Your task to perform on an android device: Go to network settings Image 0: 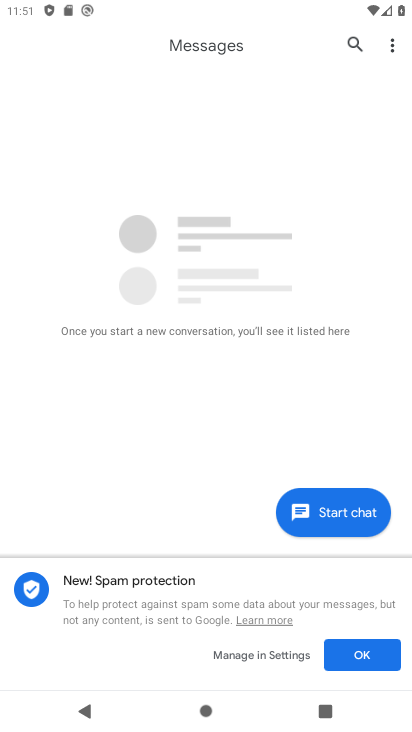
Step 0: press home button
Your task to perform on an android device: Go to network settings Image 1: 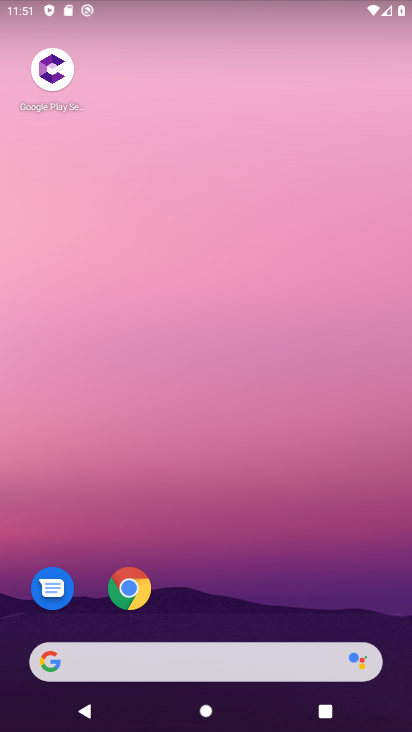
Step 1: drag from (182, 518) to (208, 396)
Your task to perform on an android device: Go to network settings Image 2: 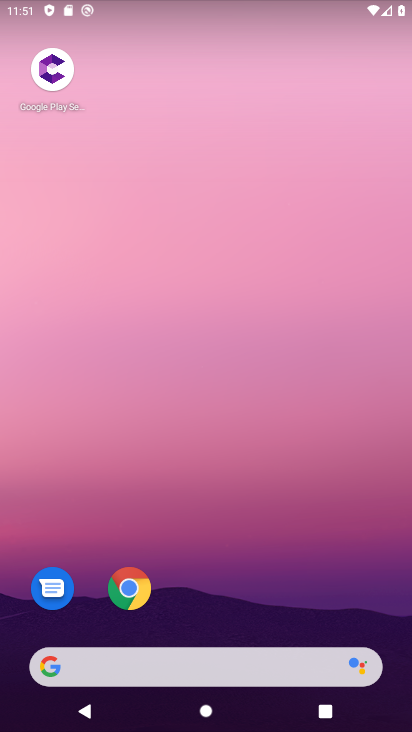
Step 2: drag from (201, 639) to (223, 161)
Your task to perform on an android device: Go to network settings Image 3: 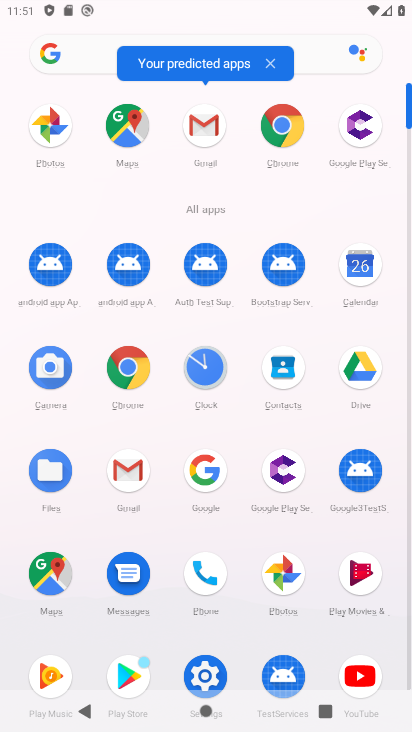
Step 3: click (197, 669)
Your task to perform on an android device: Go to network settings Image 4: 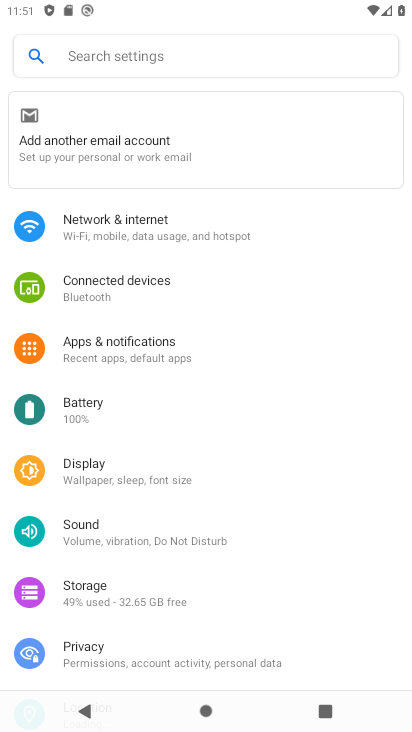
Step 4: click (194, 233)
Your task to perform on an android device: Go to network settings Image 5: 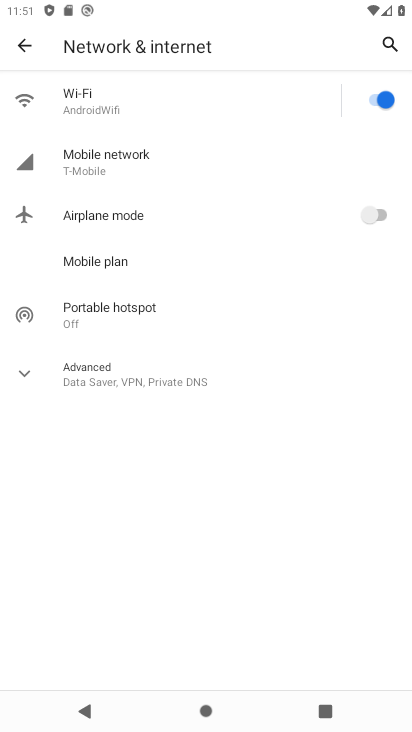
Step 5: click (138, 379)
Your task to perform on an android device: Go to network settings Image 6: 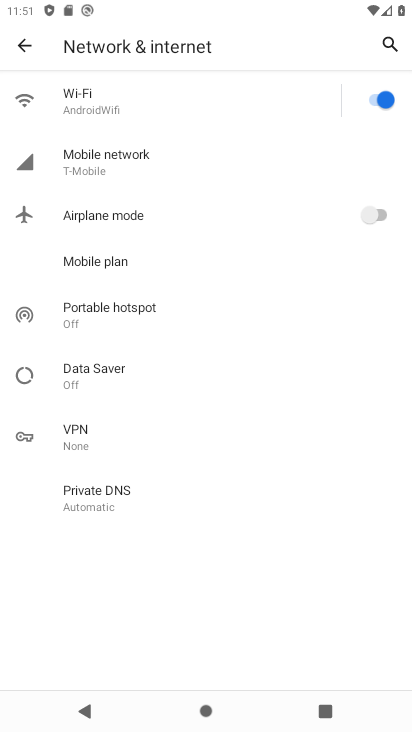
Step 6: task complete